Your task to perform on an android device: Open Youtube and go to "Your channel" Image 0: 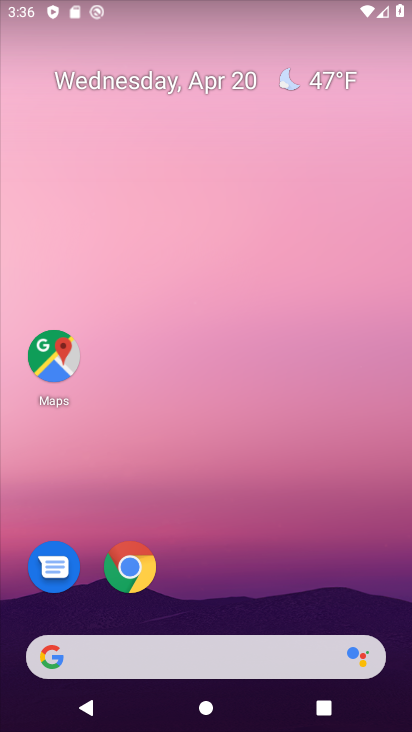
Step 0: drag from (192, 616) to (136, 25)
Your task to perform on an android device: Open Youtube and go to "Your channel" Image 1: 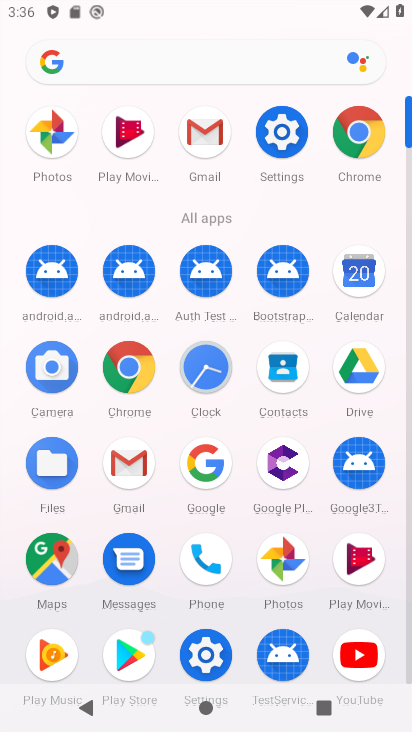
Step 1: click (371, 673)
Your task to perform on an android device: Open Youtube and go to "Your channel" Image 2: 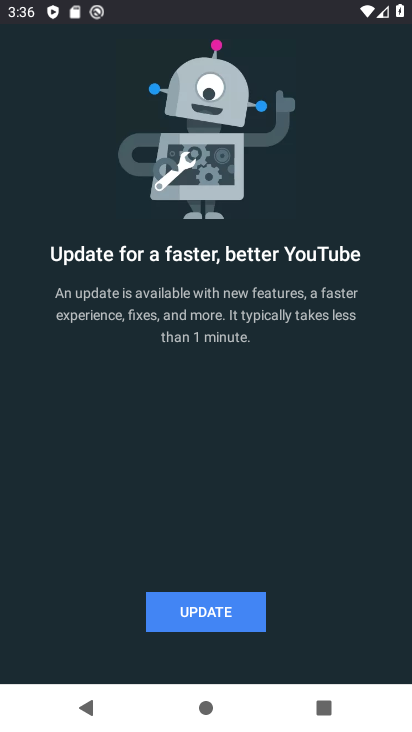
Step 2: click (255, 599)
Your task to perform on an android device: Open Youtube and go to "Your channel" Image 3: 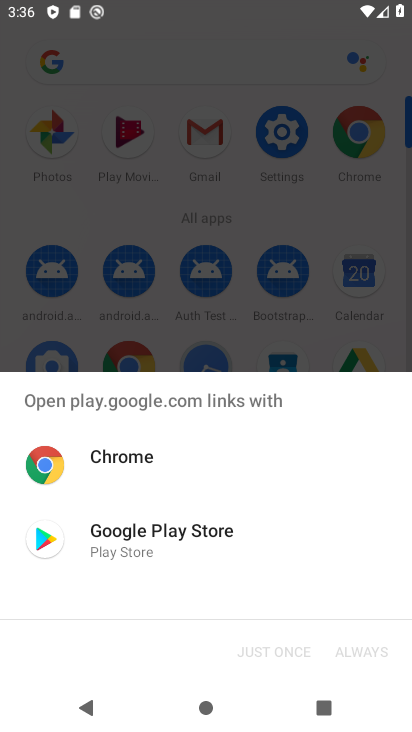
Step 3: click (145, 518)
Your task to perform on an android device: Open Youtube and go to "Your channel" Image 4: 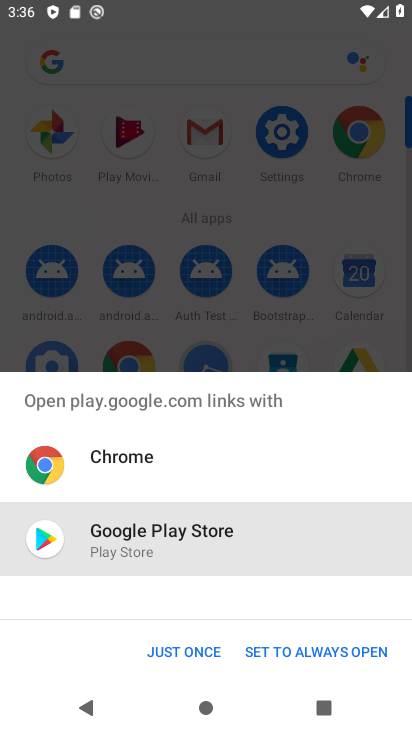
Step 4: click (169, 654)
Your task to perform on an android device: Open Youtube and go to "Your channel" Image 5: 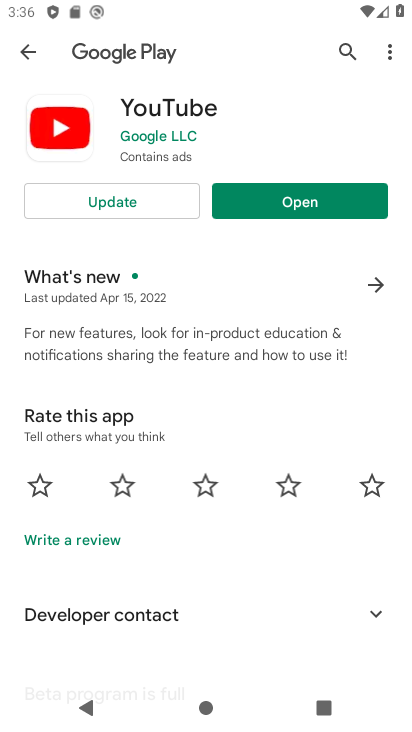
Step 5: click (288, 191)
Your task to perform on an android device: Open Youtube and go to "Your channel" Image 6: 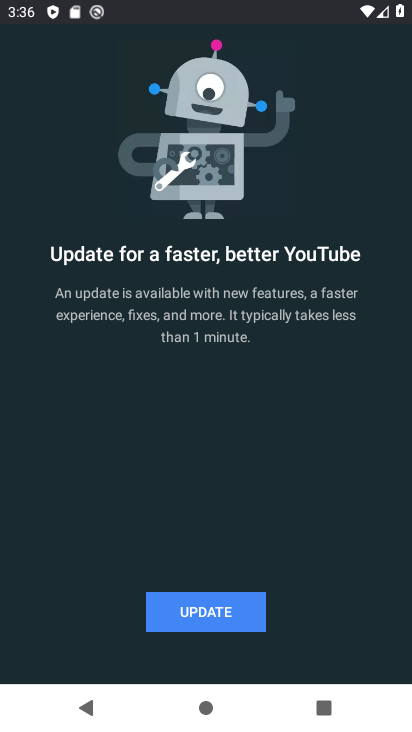
Step 6: click (204, 623)
Your task to perform on an android device: Open Youtube and go to "Your channel" Image 7: 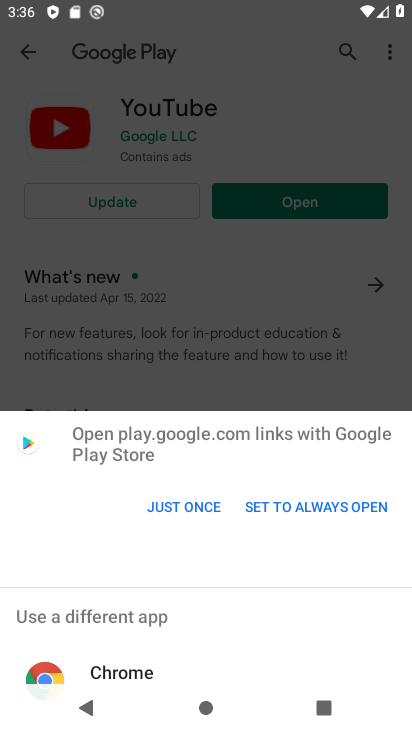
Step 7: click (202, 493)
Your task to perform on an android device: Open Youtube and go to "Your channel" Image 8: 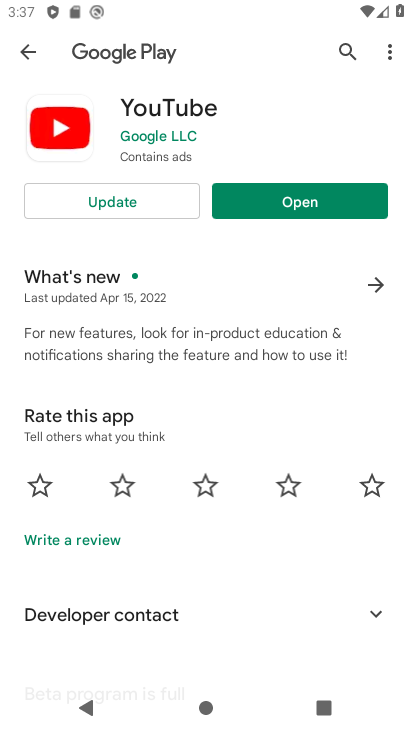
Step 8: click (276, 198)
Your task to perform on an android device: Open Youtube and go to "Your channel" Image 9: 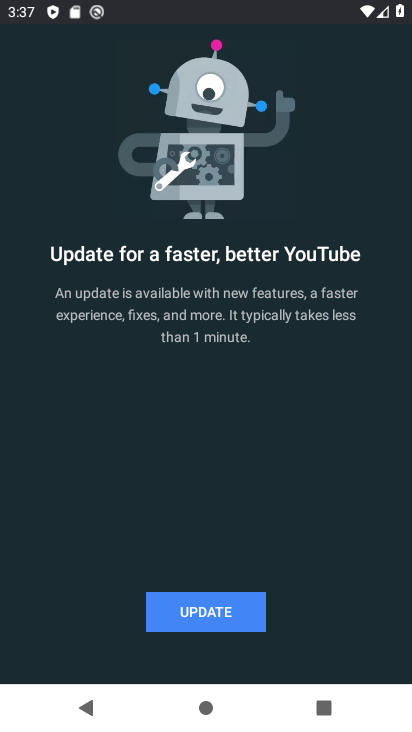
Step 9: click (199, 624)
Your task to perform on an android device: Open Youtube and go to "Your channel" Image 10: 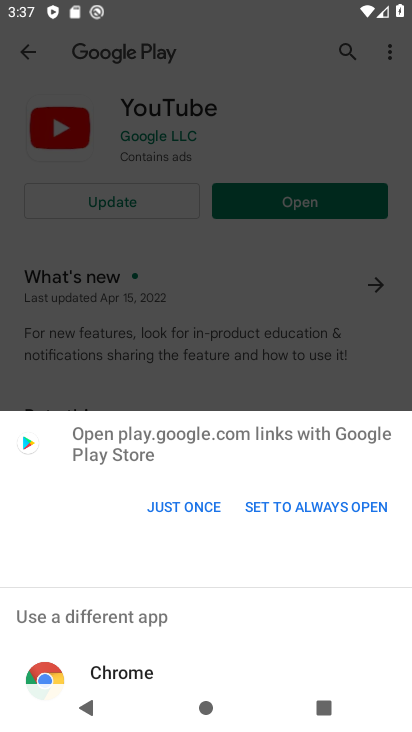
Step 10: click (204, 511)
Your task to perform on an android device: Open Youtube and go to "Your channel" Image 11: 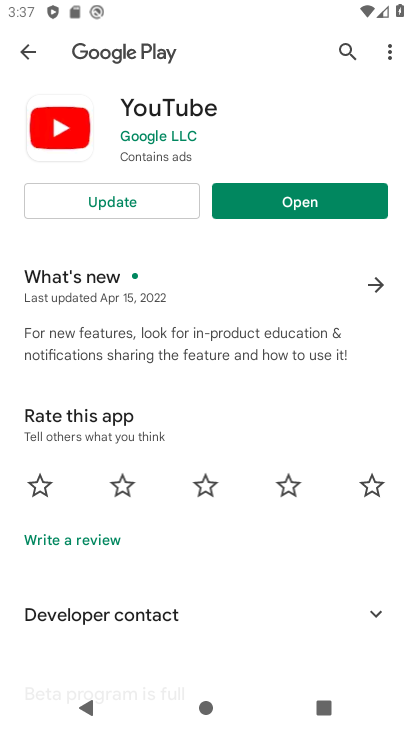
Step 11: click (243, 220)
Your task to perform on an android device: Open Youtube and go to "Your channel" Image 12: 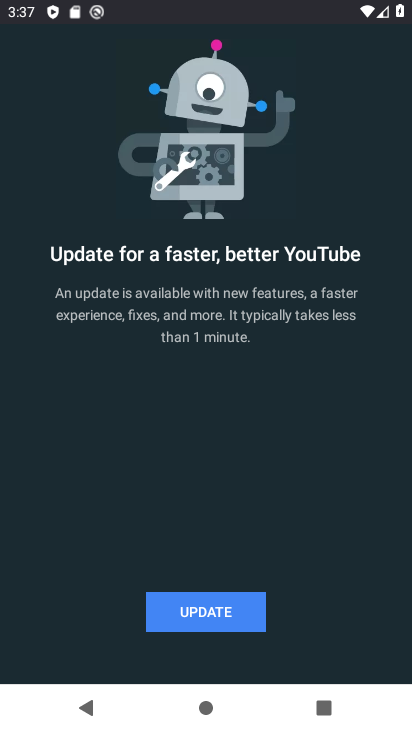
Step 12: click (189, 615)
Your task to perform on an android device: Open Youtube and go to "Your channel" Image 13: 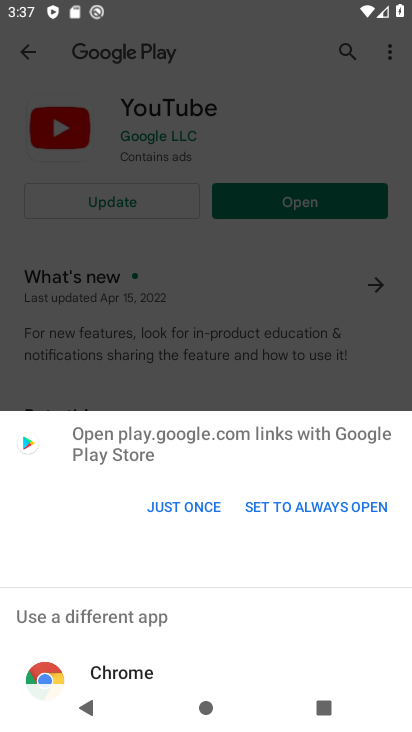
Step 13: click (196, 499)
Your task to perform on an android device: Open Youtube and go to "Your channel" Image 14: 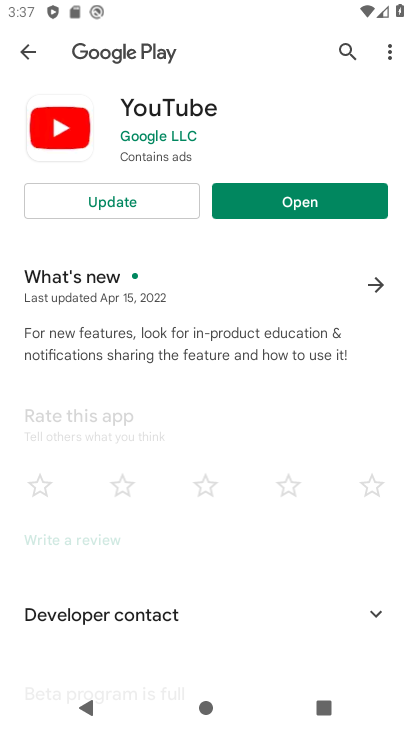
Step 14: click (133, 189)
Your task to perform on an android device: Open Youtube and go to "Your channel" Image 15: 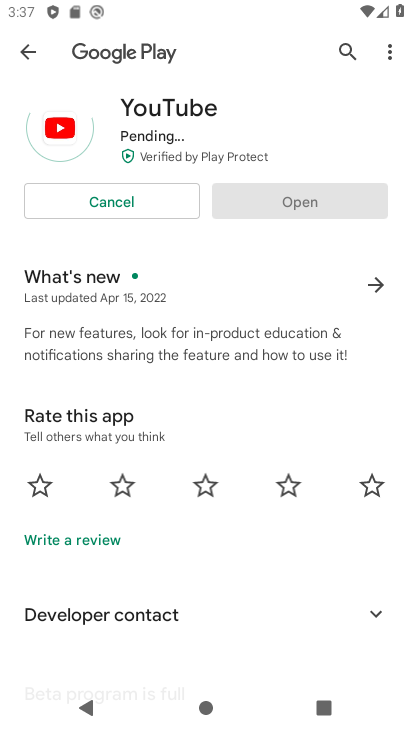
Step 15: click (133, 189)
Your task to perform on an android device: Open Youtube and go to "Your channel" Image 16: 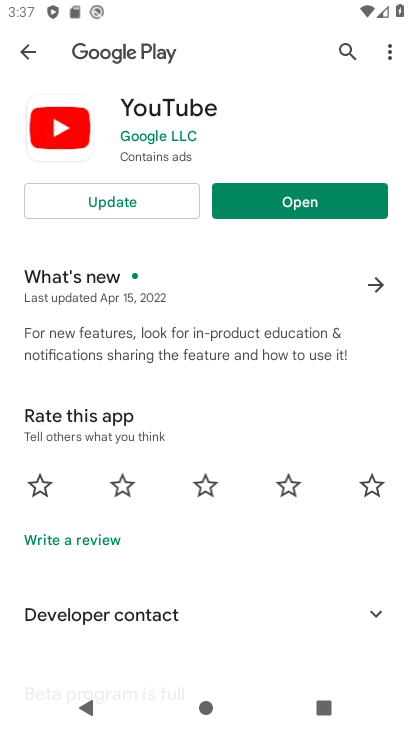
Step 16: click (133, 189)
Your task to perform on an android device: Open Youtube and go to "Your channel" Image 17: 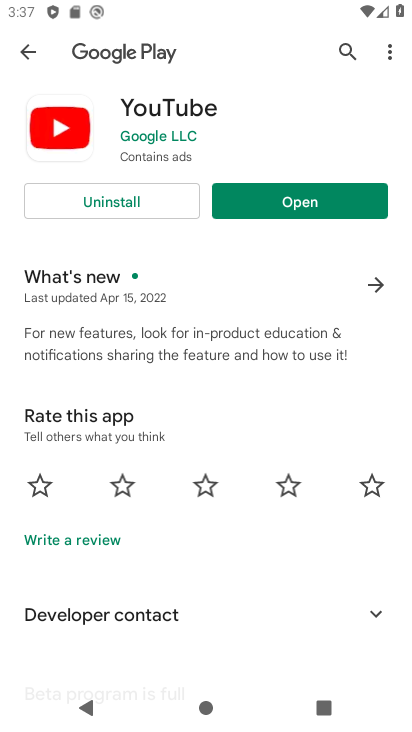
Step 17: click (292, 204)
Your task to perform on an android device: Open Youtube and go to "Your channel" Image 18: 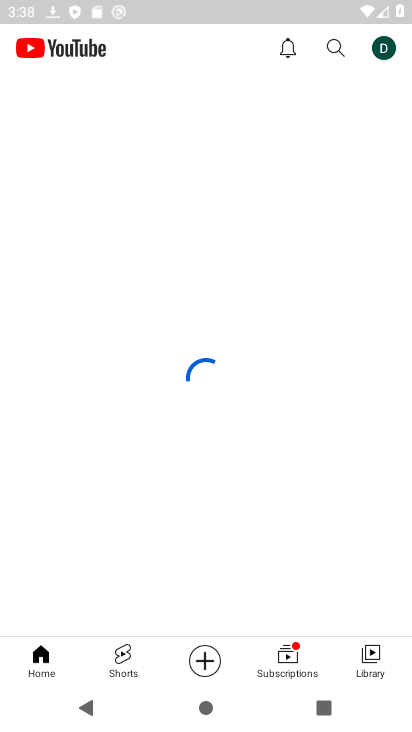
Step 18: click (338, 51)
Your task to perform on an android device: Open Youtube and go to "Your channel" Image 19: 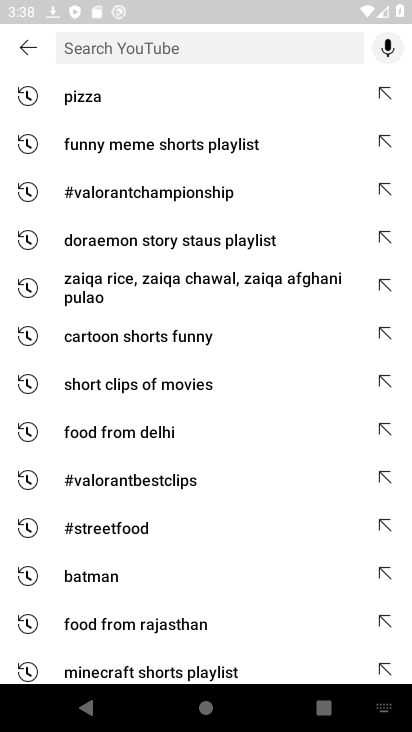
Step 19: click (171, 42)
Your task to perform on an android device: Open Youtube and go to "Your channel" Image 20: 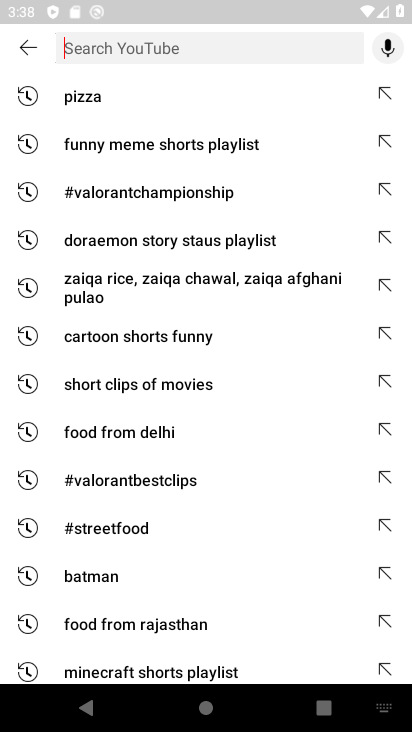
Step 20: type "your channel"
Your task to perform on an android device: Open Youtube and go to "Your channel" Image 21: 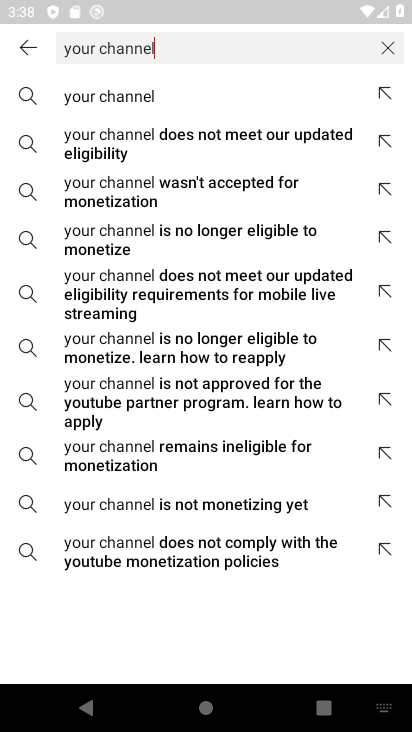
Step 21: click (250, 103)
Your task to perform on an android device: Open Youtube and go to "Your channel" Image 22: 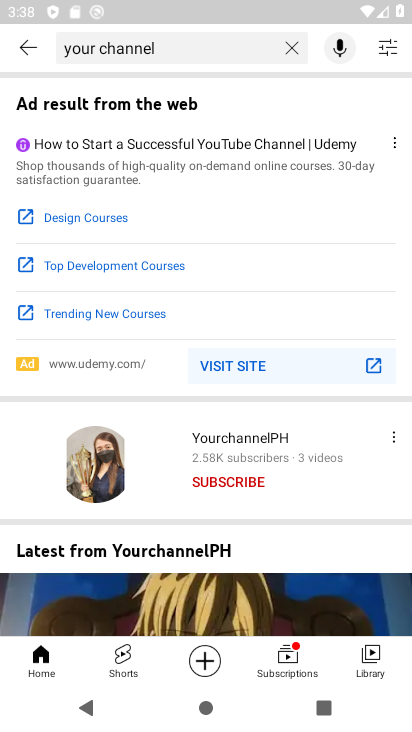
Step 22: task complete